Your task to perform on an android device: Open Google Maps Image 0: 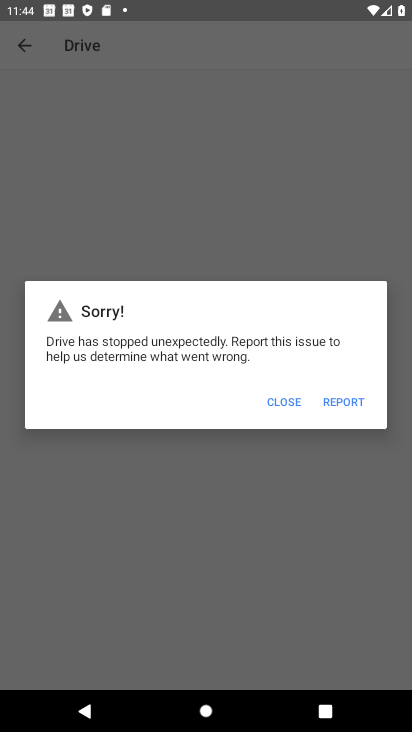
Step 0: press home button
Your task to perform on an android device: Open Google Maps Image 1: 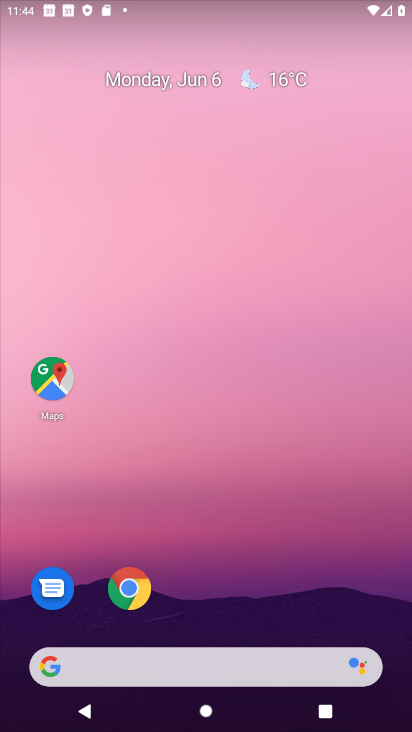
Step 1: click (52, 380)
Your task to perform on an android device: Open Google Maps Image 2: 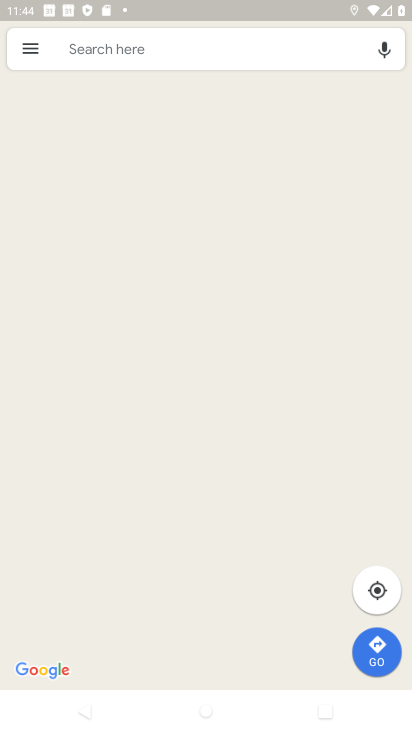
Step 2: task complete